Your task to perform on an android device: turn off location Image 0: 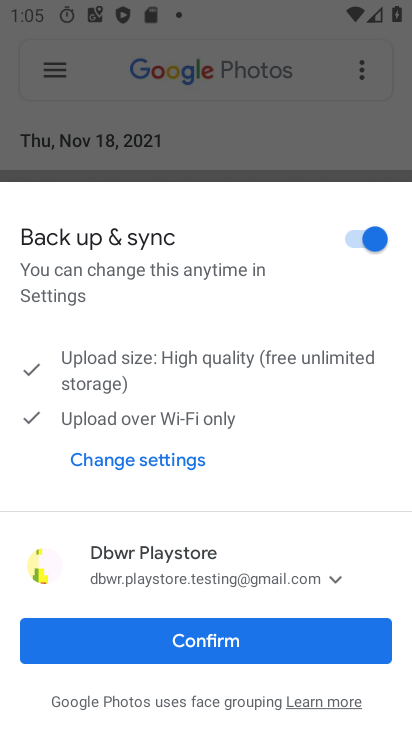
Step 0: press home button
Your task to perform on an android device: turn off location Image 1: 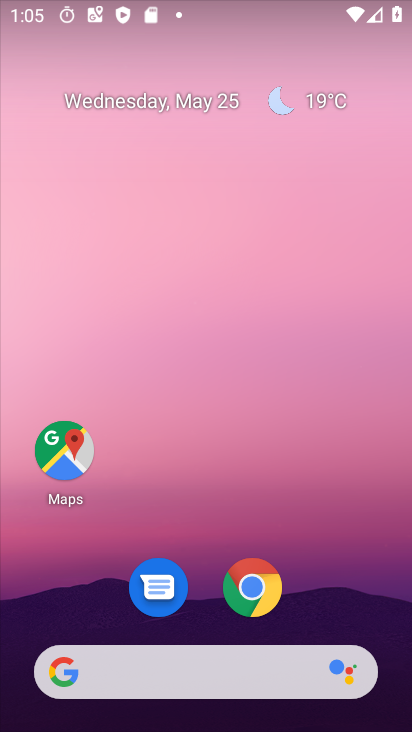
Step 1: drag from (193, 723) to (186, 220)
Your task to perform on an android device: turn off location Image 2: 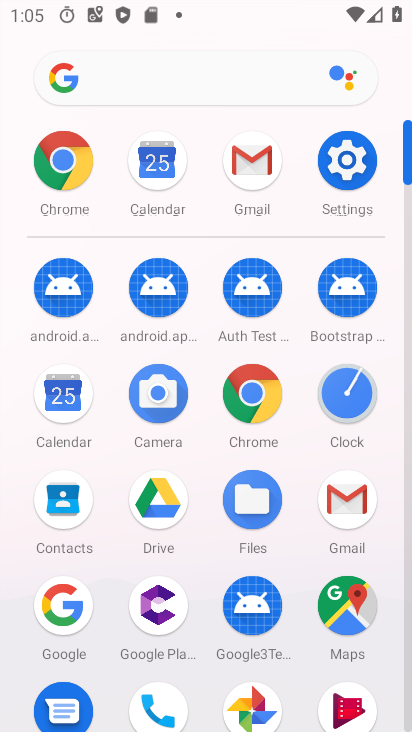
Step 2: click (350, 160)
Your task to perform on an android device: turn off location Image 3: 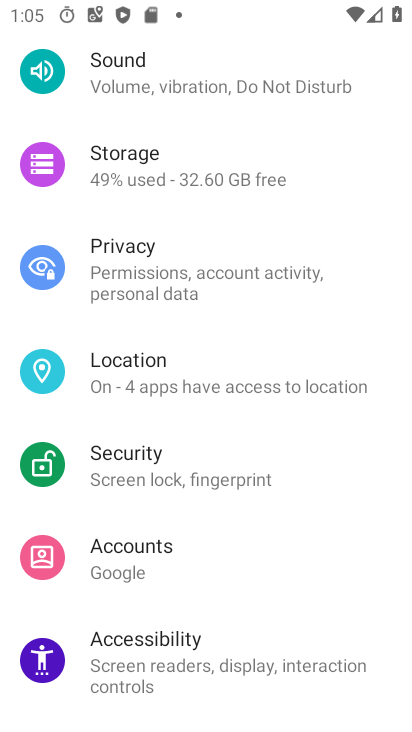
Step 3: click (130, 371)
Your task to perform on an android device: turn off location Image 4: 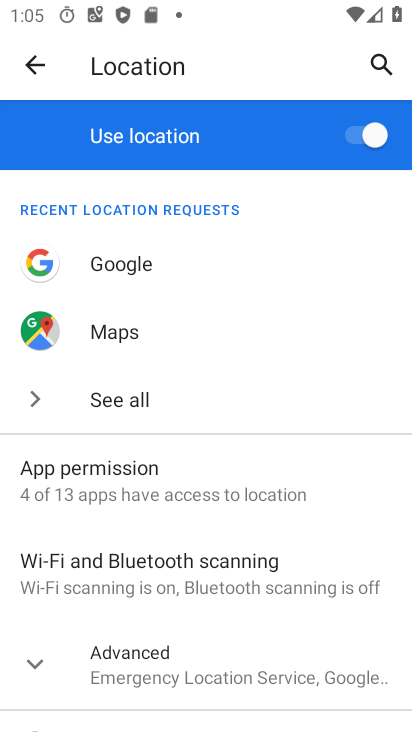
Step 4: click (353, 139)
Your task to perform on an android device: turn off location Image 5: 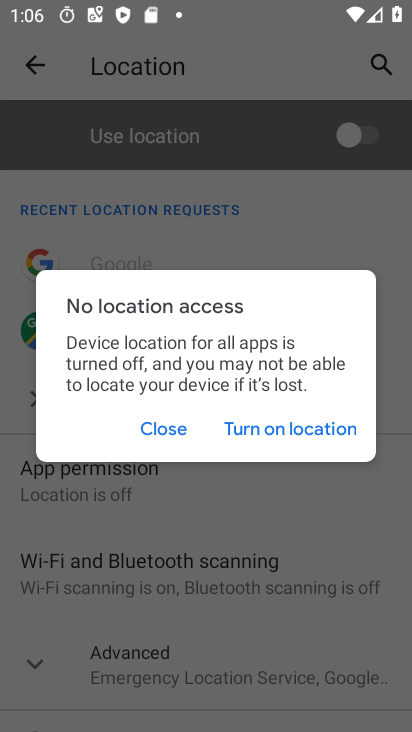
Step 5: click (162, 430)
Your task to perform on an android device: turn off location Image 6: 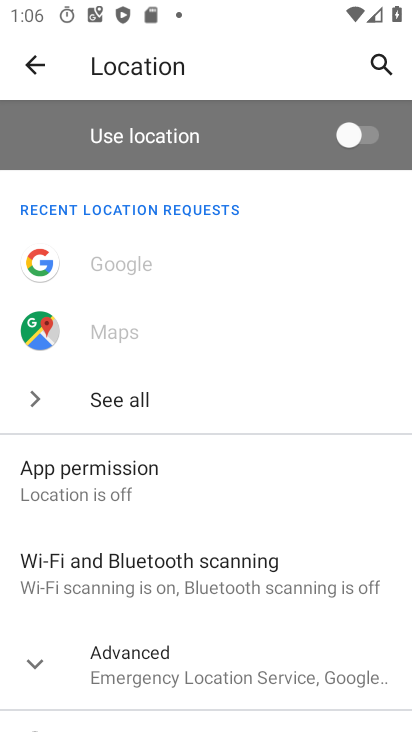
Step 6: task complete